Your task to perform on an android device: What is the news today? Image 0: 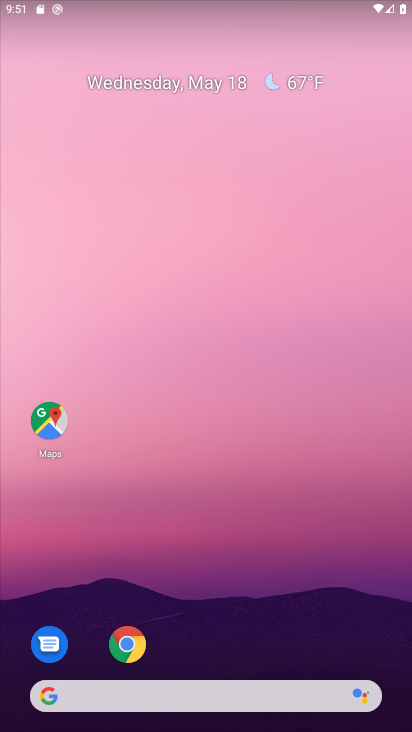
Step 0: drag from (239, 622) to (248, 2)
Your task to perform on an android device: What is the news today? Image 1: 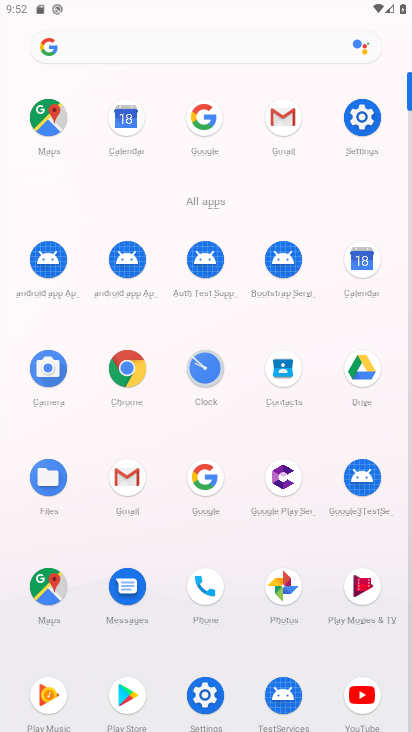
Step 1: click (203, 479)
Your task to perform on an android device: What is the news today? Image 2: 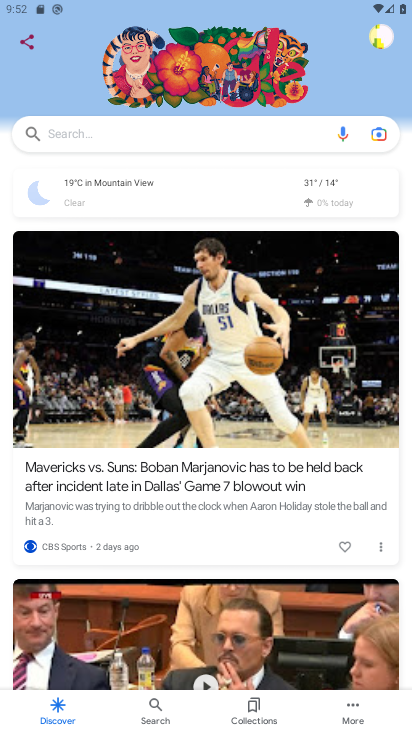
Step 2: click (207, 136)
Your task to perform on an android device: What is the news today? Image 3: 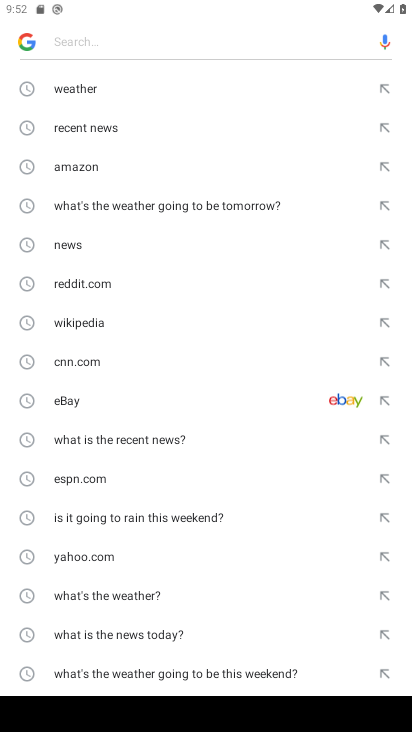
Step 3: type "news today"
Your task to perform on an android device: What is the news today? Image 4: 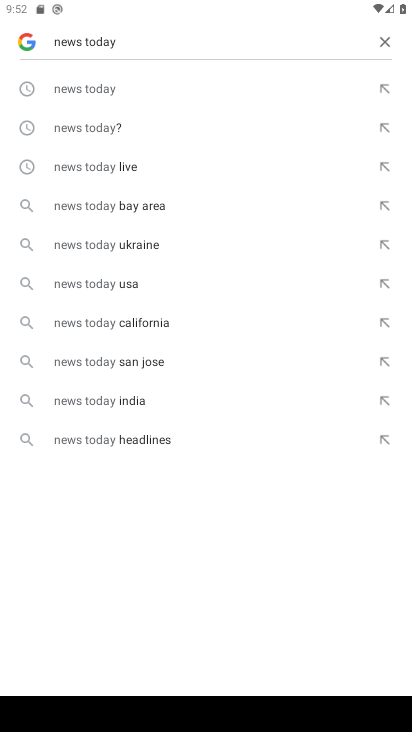
Step 4: click (97, 91)
Your task to perform on an android device: What is the news today? Image 5: 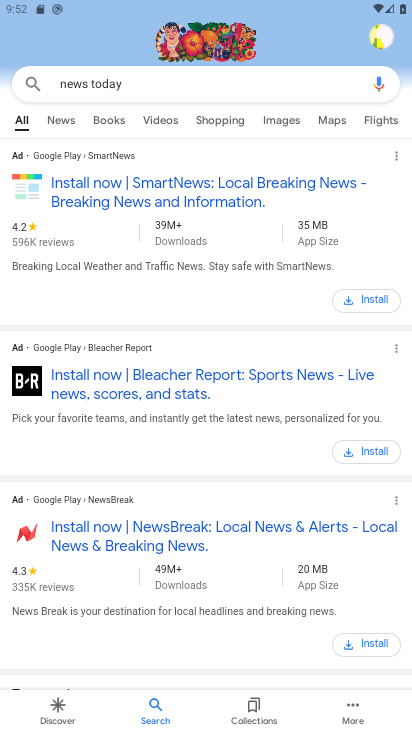
Step 5: task complete